Your task to perform on an android device: turn on the 12-hour format for clock Image 0: 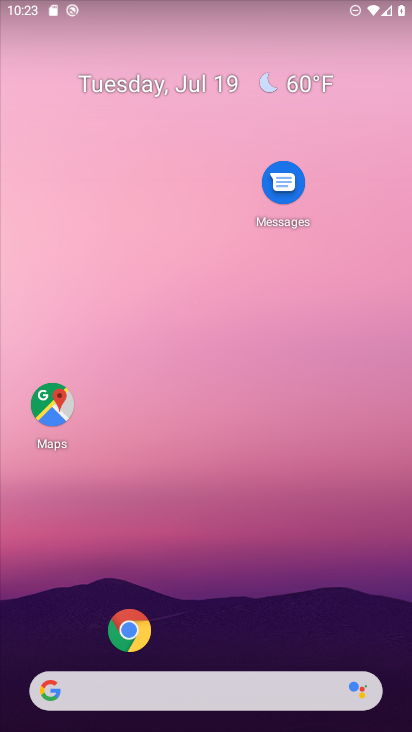
Step 0: click (90, 678)
Your task to perform on an android device: turn on the 12-hour format for clock Image 1: 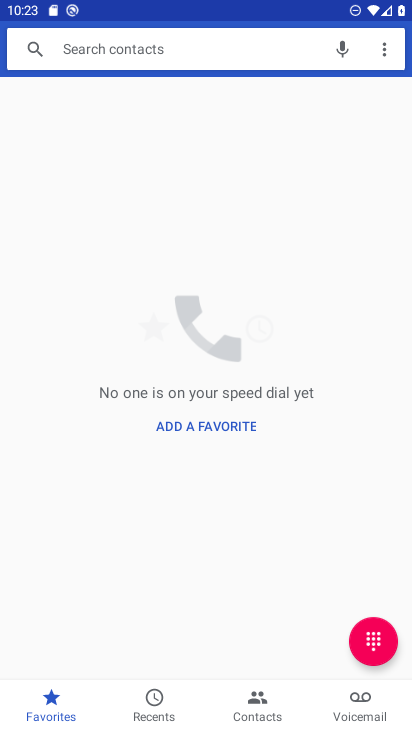
Step 1: press home button
Your task to perform on an android device: turn on the 12-hour format for clock Image 2: 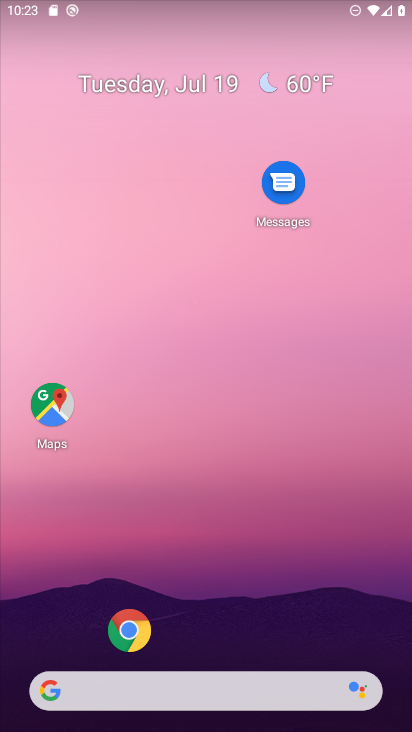
Step 2: drag from (32, 666) to (205, 201)
Your task to perform on an android device: turn on the 12-hour format for clock Image 3: 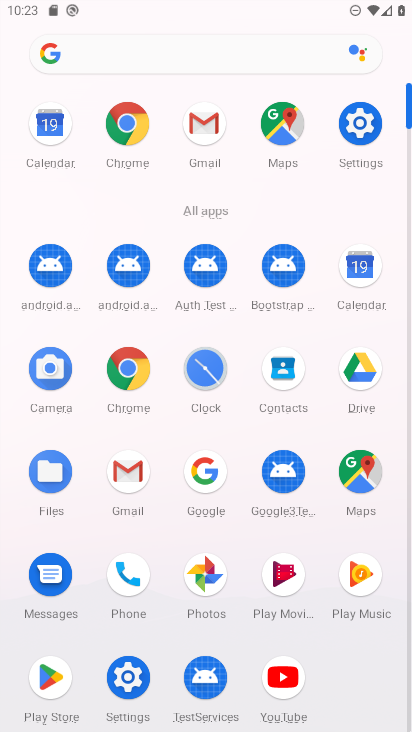
Step 3: click (205, 375)
Your task to perform on an android device: turn on the 12-hour format for clock Image 4: 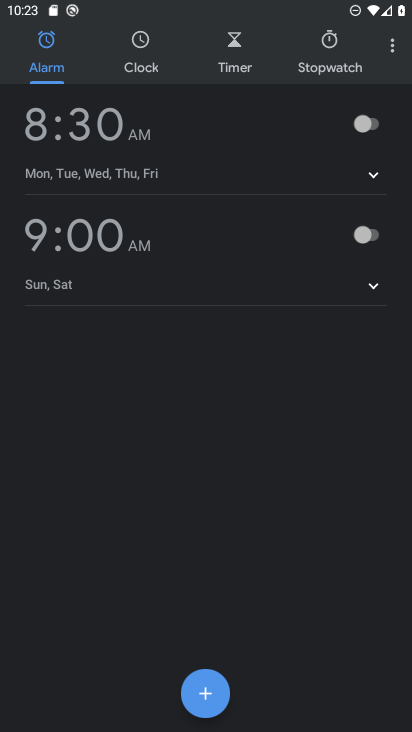
Step 4: click (385, 48)
Your task to perform on an android device: turn on the 12-hour format for clock Image 5: 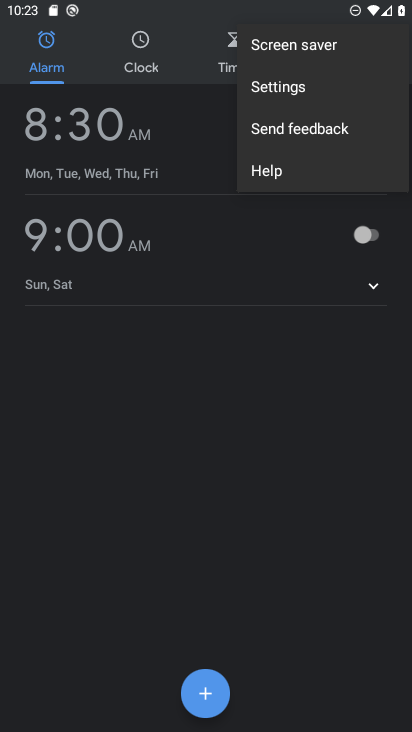
Step 5: click (288, 88)
Your task to perform on an android device: turn on the 12-hour format for clock Image 6: 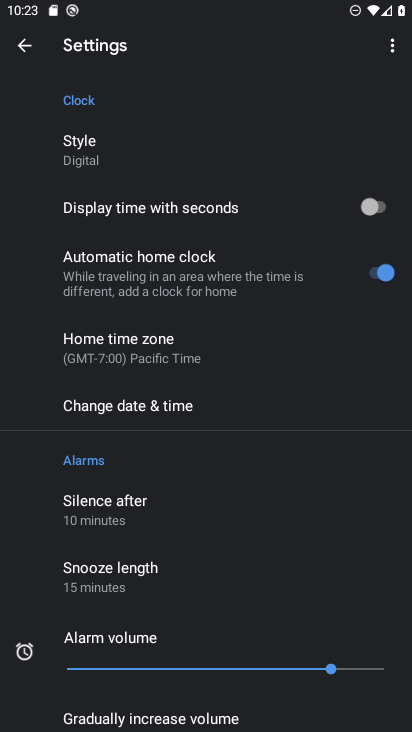
Step 6: click (136, 393)
Your task to perform on an android device: turn on the 12-hour format for clock Image 7: 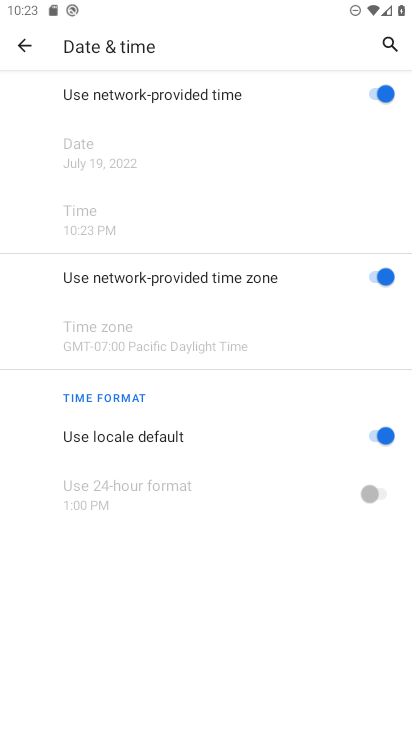
Step 7: click (375, 429)
Your task to perform on an android device: turn on the 12-hour format for clock Image 8: 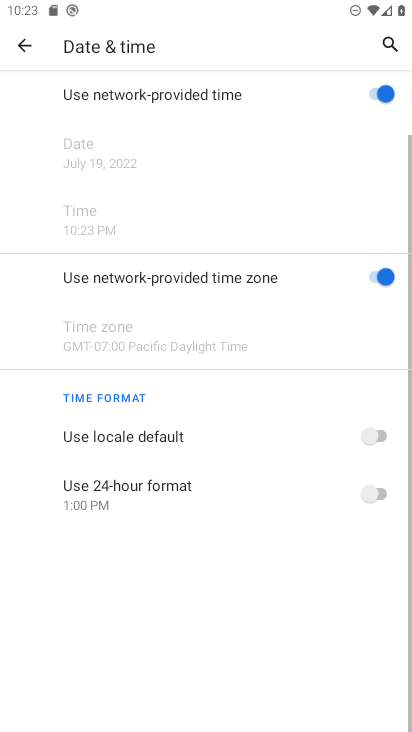
Step 8: click (369, 502)
Your task to perform on an android device: turn on the 12-hour format for clock Image 9: 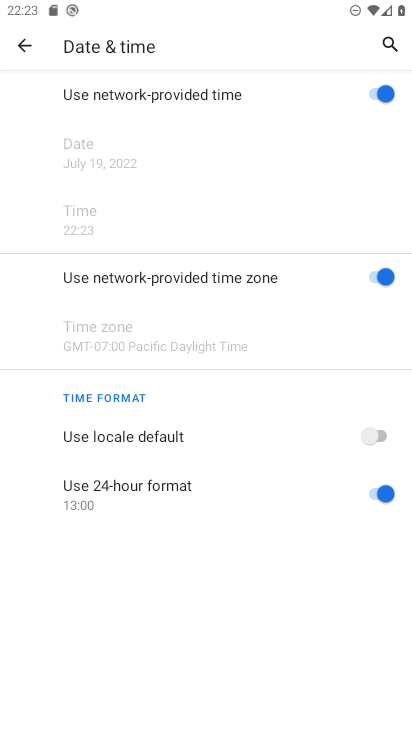
Step 9: task complete